Your task to perform on an android device: Clear all items from cart on target. Search for logitech g933 on target, select the first entry, and add it to the cart. Image 0: 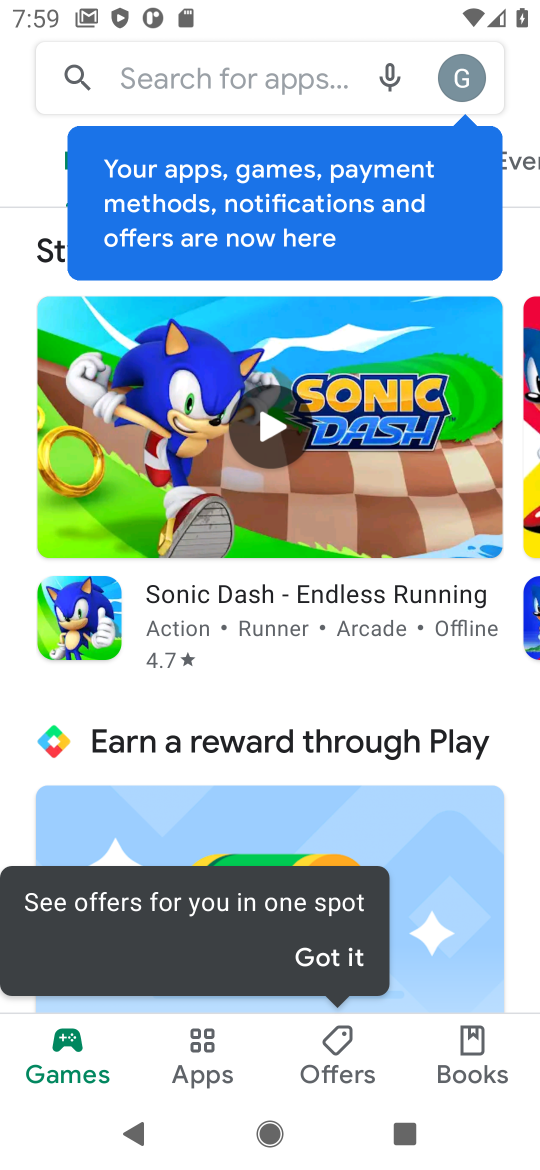
Step 0: press home button
Your task to perform on an android device: Clear all items from cart on target. Search for logitech g933 on target, select the first entry, and add it to the cart. Image 1: 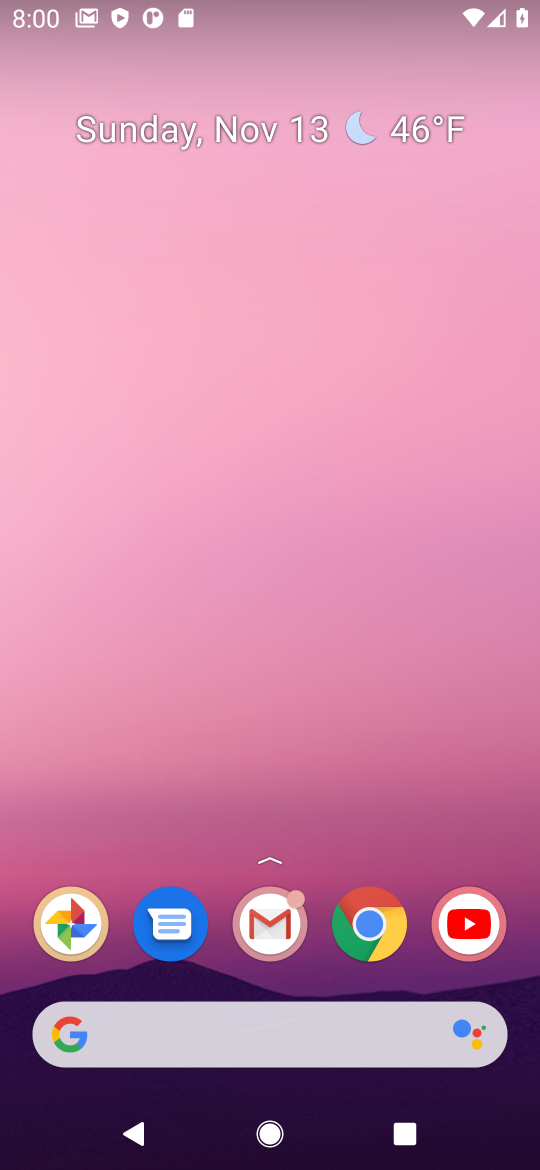
Step 1: click (369, 912)
Your task to perform on an android device: Clear all items from cart on target. Search for logitech g933 on target, select the first entry, and add it to the cart. Image 2: 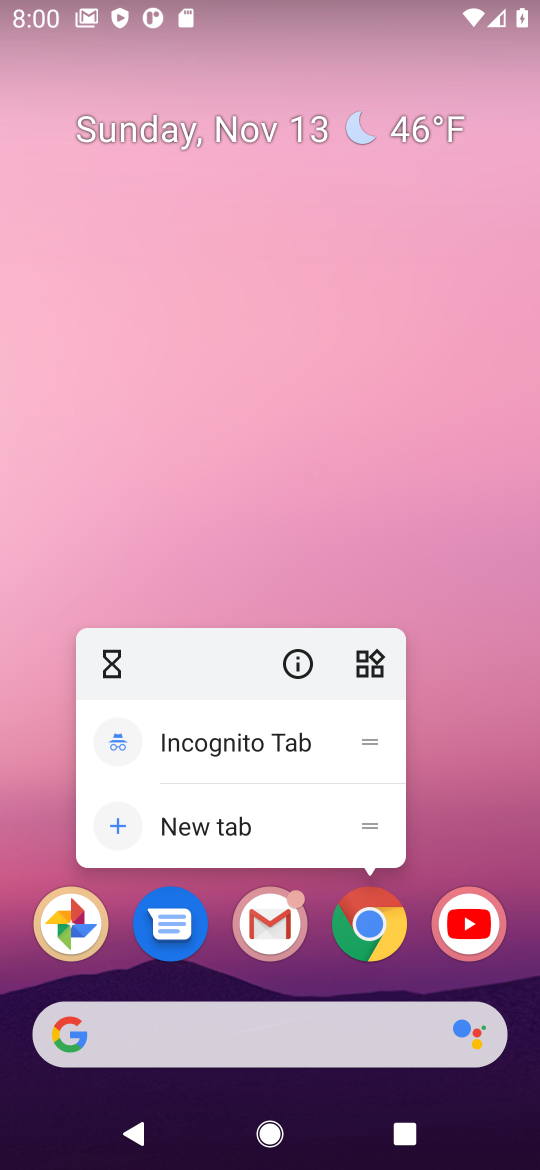
Step 2: click (364, 912)
Your task to perform on an android device: Clear all items from cart on target. Search for logitech g933 on target, select the first entry, and add it to the cart. Image 3: 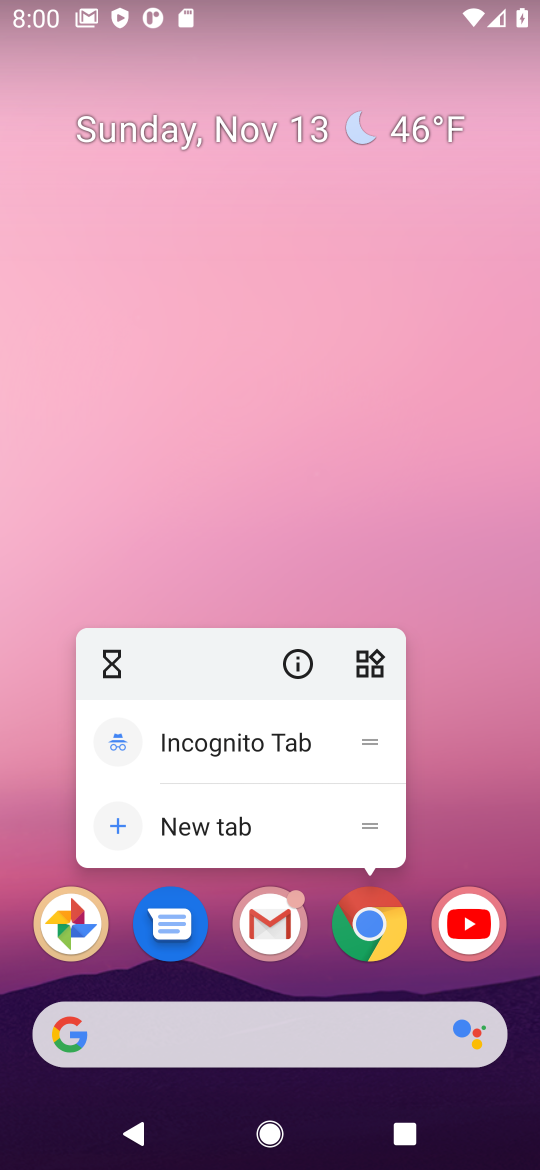
Step 3: click (364, 916)
Your task to perform on an android device: Clear all items from cart on target. Search for logitech g933 on target, select the first entry, and add it to the cart. Image 4: 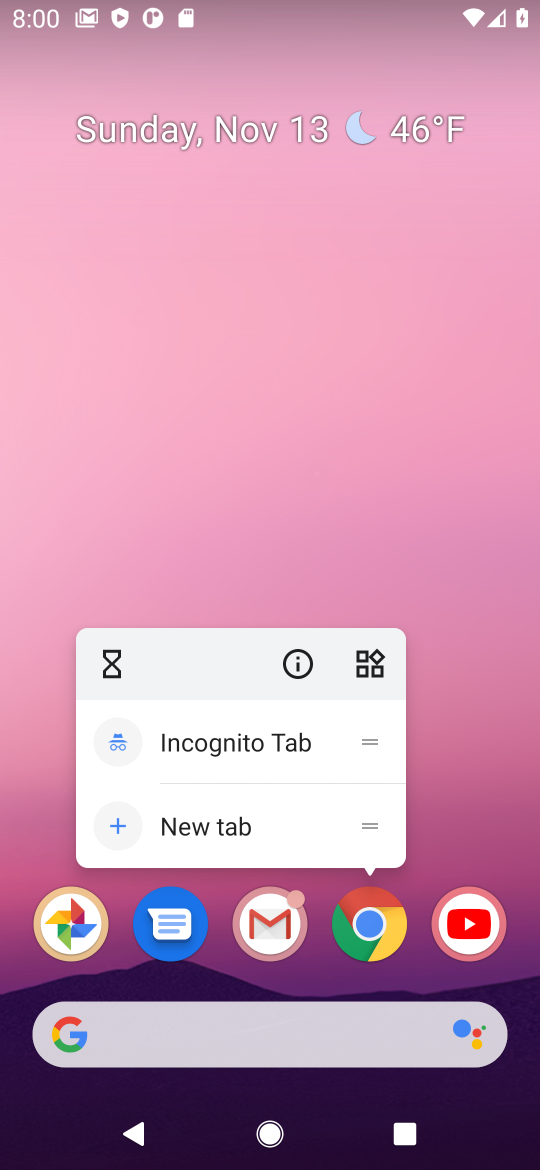
Step 4: click (364, 920)
Your task to perform on an android device: Clear all items from cart on target. Search for logitech g933 on target, select the first entry, and add it to the cart. Image 5: 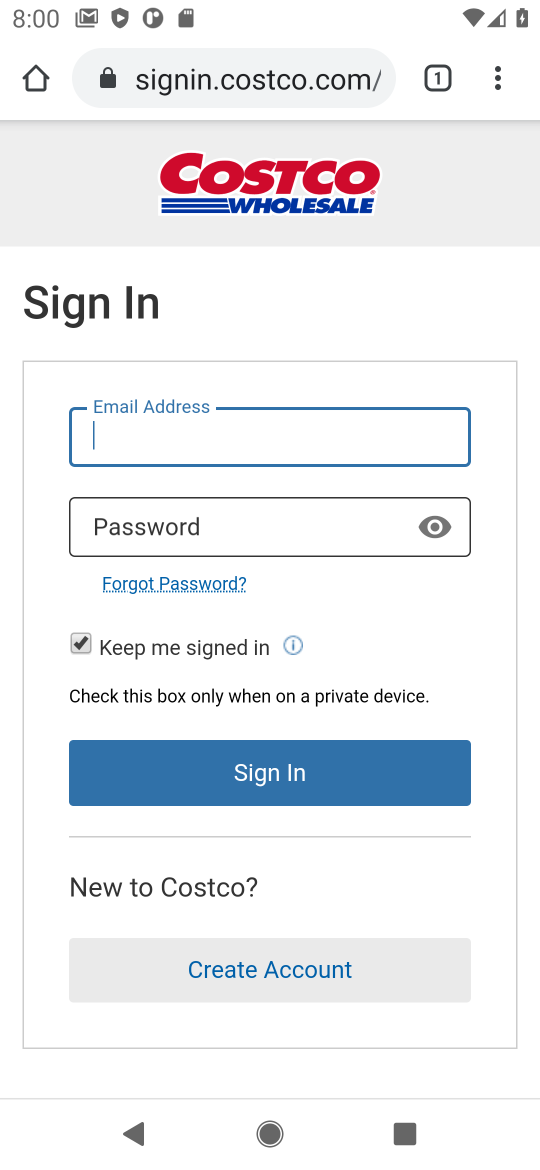
Step 5: click (279, 78)
Your task to perform on an android device: Clear all items from cart on target. Search for logitech g933 on target, select the first entry, and add it to the cart. Image 6: 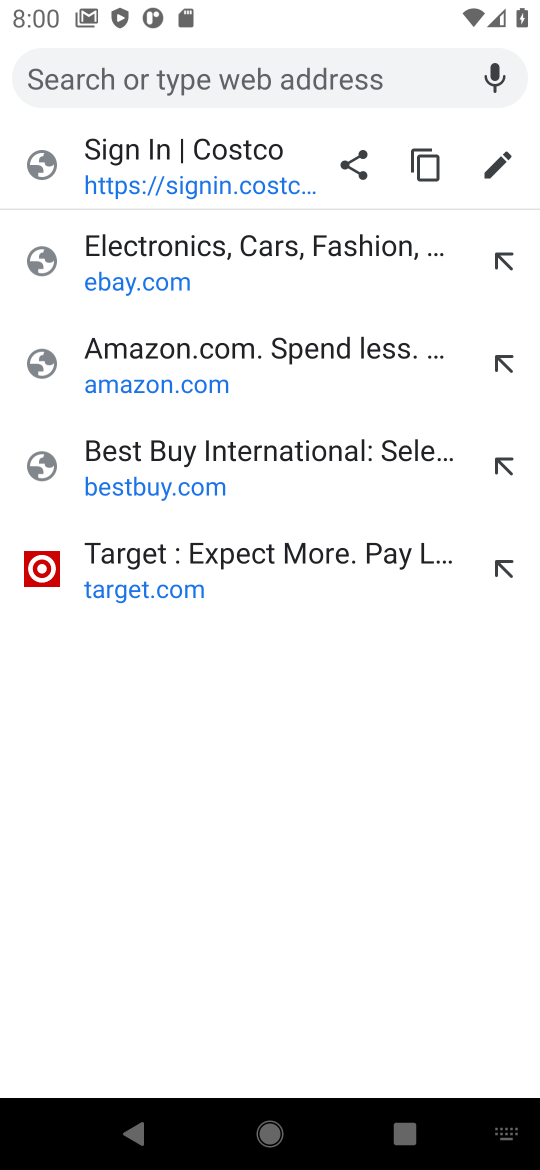
Step 6: click (125, 555)
Your task to perform on an android device: Clear all items from cart on target. Search for logitech g933 on target, select the first entry, and add it to the cart. Image 7: 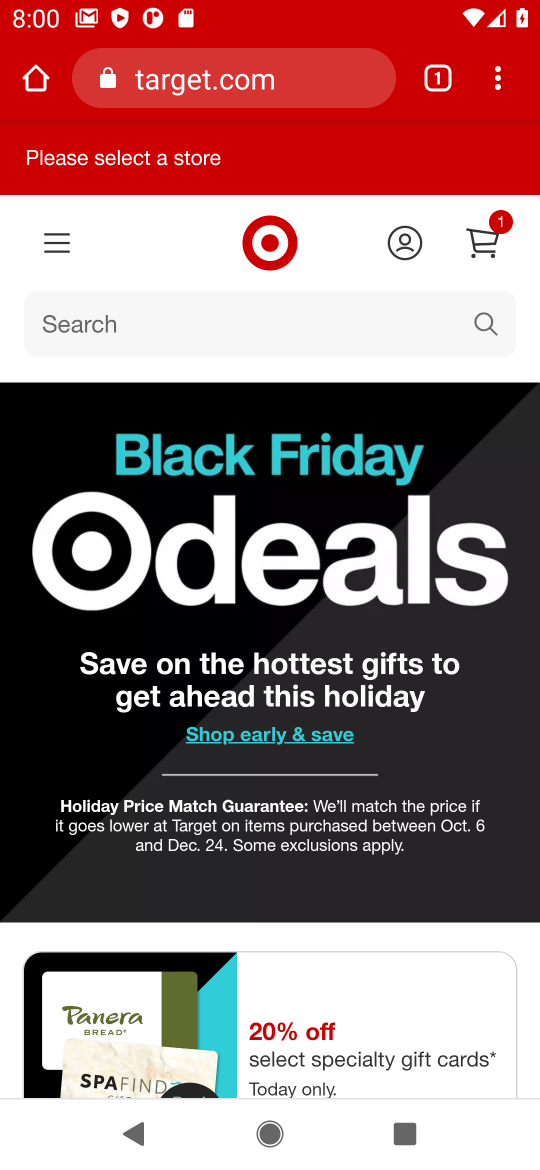
Step 7: click (482, 234)
Your task to perform on an android device: Clear all items from cart on target. Search for logitech g933 on target, select the first entry, and add it to the cart. Image 8: 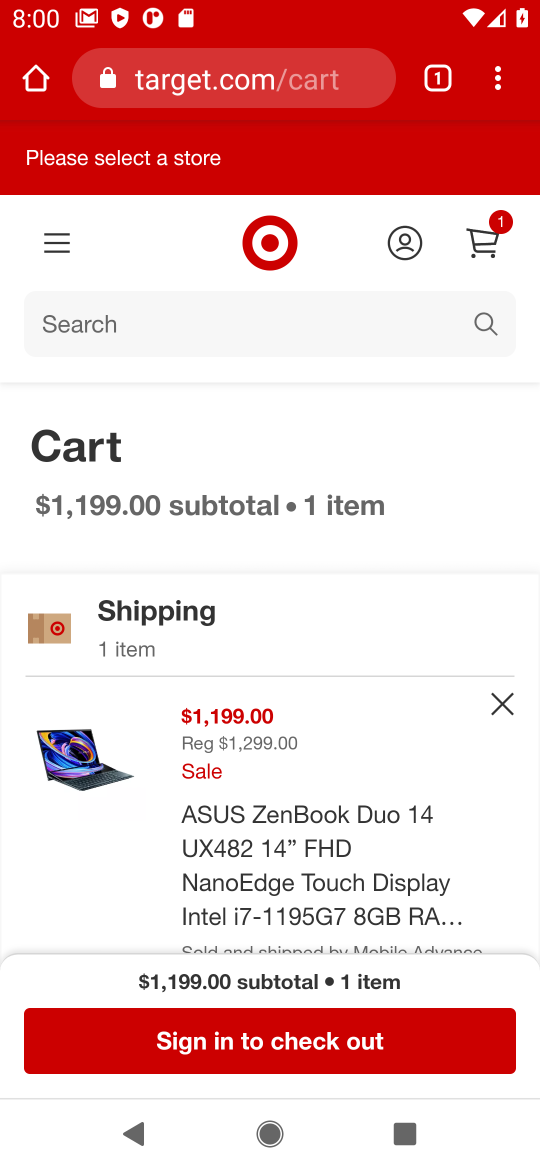
Step 8: click (496, 702)
Your task to perform on an android device: Clear all items from cart on target. Search for logitech g933 on target, select the first entry, and add it to the cart. Image 9: 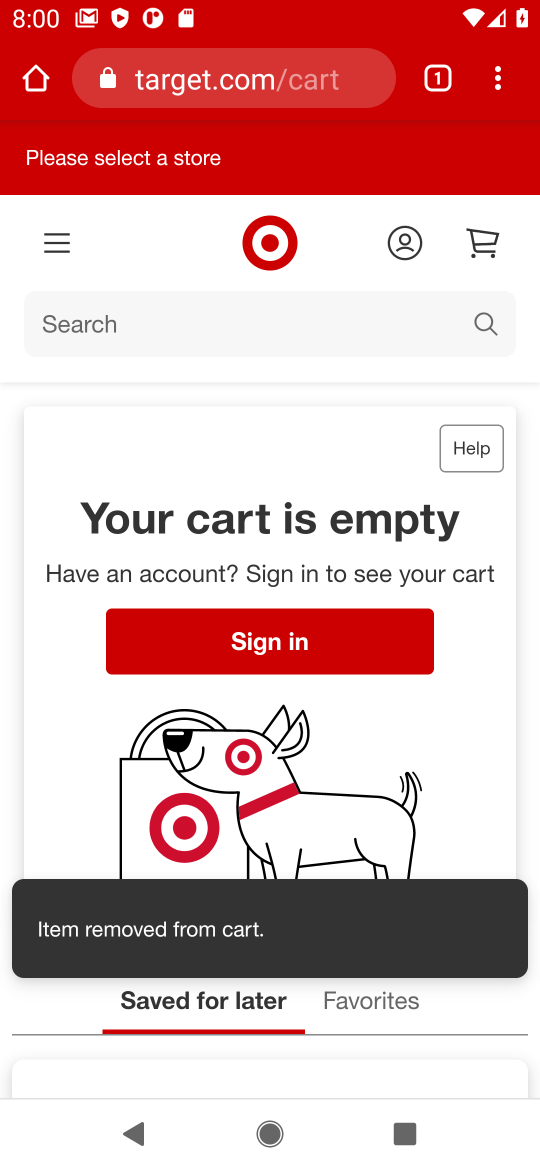
Step 9: click (163, 322)
Your task to perform on an android device: Clear all items from cart on target. Search for logitech g933 on target, select the first entry, and add it to the cart. Image 10: 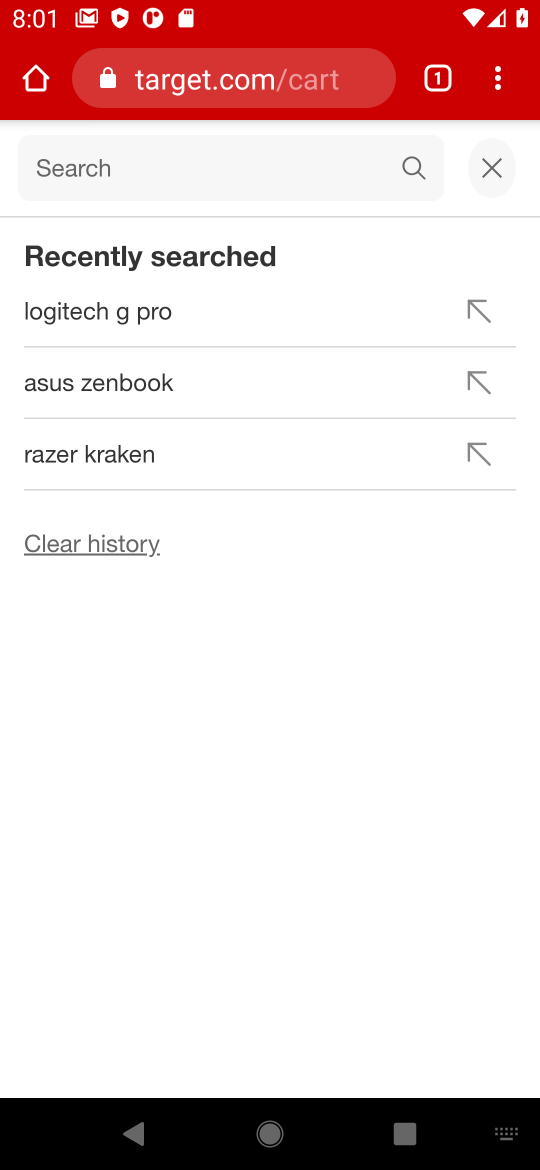
Step 10: type "logitech g933"
Your task to perform on an android device: Clear all items from cart on target. Search for logitech g933 on target, select the first entry, and add it to the cart. Image 11: 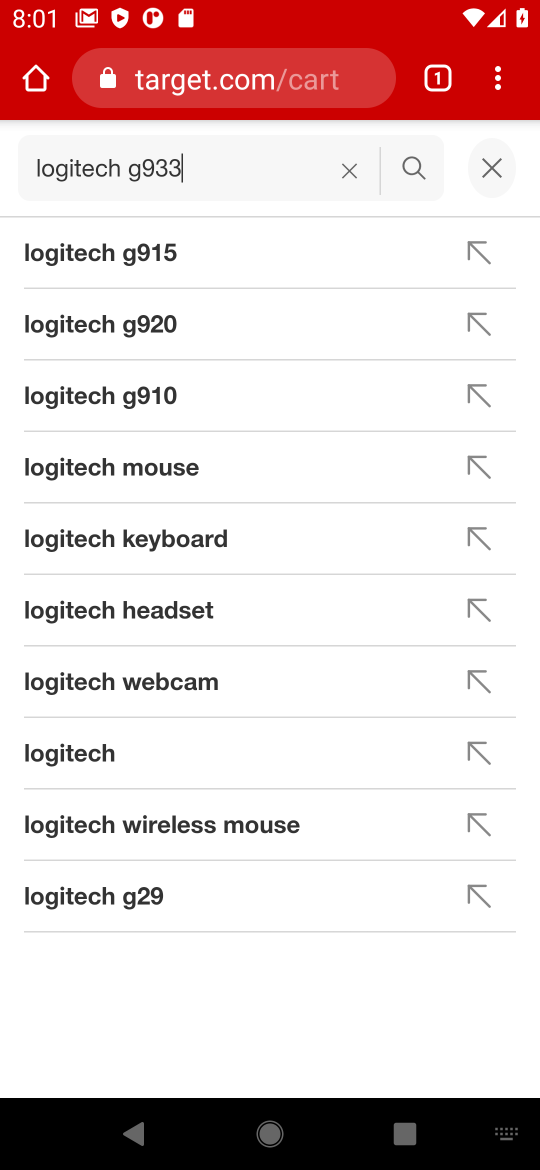
Step 11: press enter
Your task to perform on an android device: Clear all items from cart on target. Search for logitech g933 on target, select the first entry, and add it to the cart. Image 12: 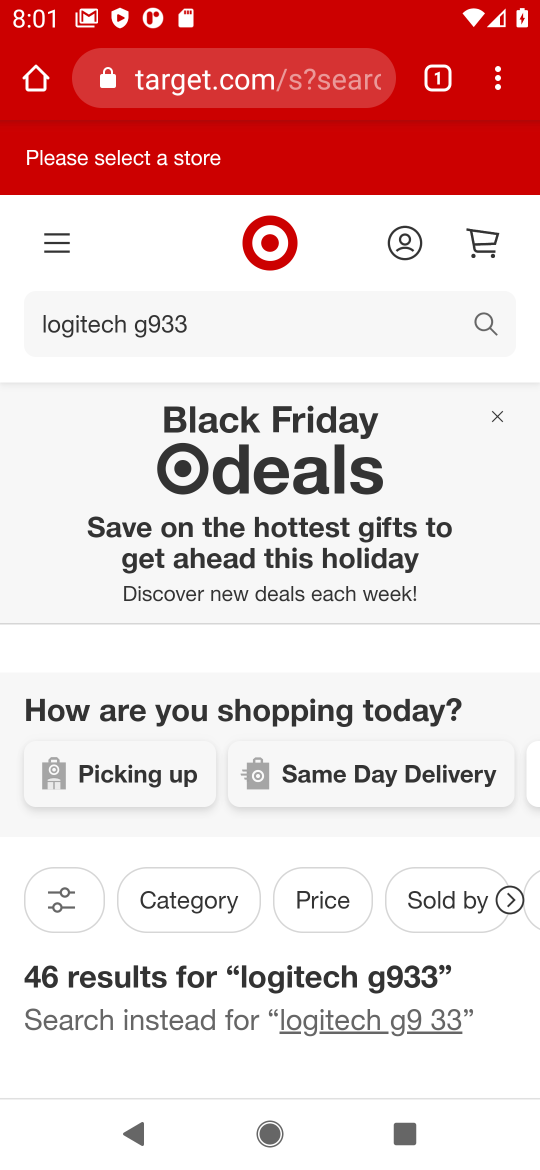
Step 12: task complete